Your task to perform on an android device: open the mobile data screen to see how much data has been used Image 0: 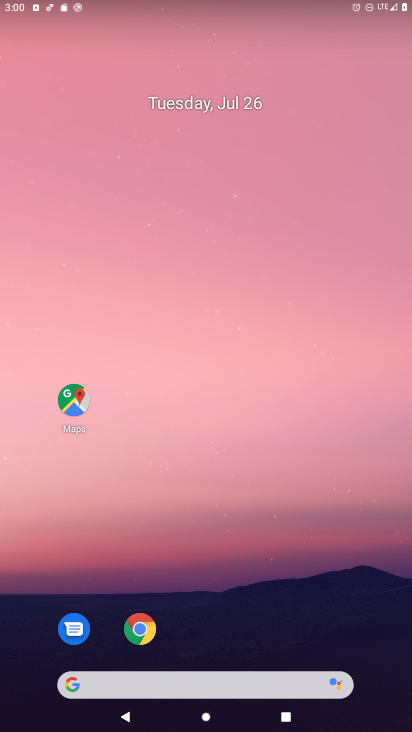
Step 0: drag from (381, 684) to (356, 162)
Your task to perform on an android device: open the mobile data screen to see how much data has been used Image 1: 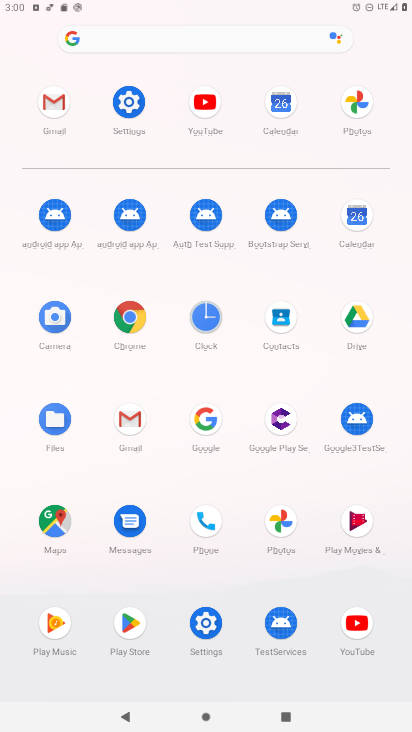
Step 1: click (208, 627)
Your task to perform on an android device: open the mobile data screen to see how much data has been used Image 2: 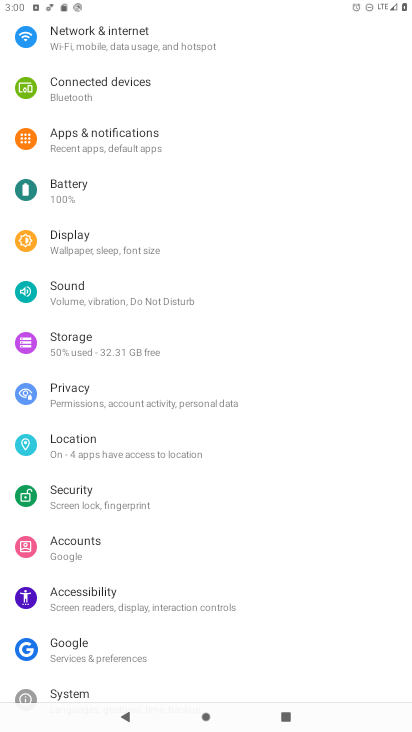
Step 2: drag from (245, 95) to (256, 310)
Your task to perform on an android device: open the mobile data screen to see how much data has been used Image 3: 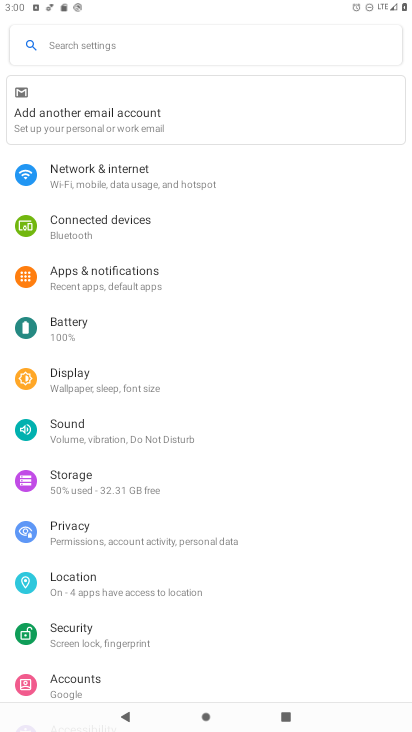
Step 3: click (89, 174)
Your task to perform on an android device: open the mobile data screen to see how much data has been used Image 4: 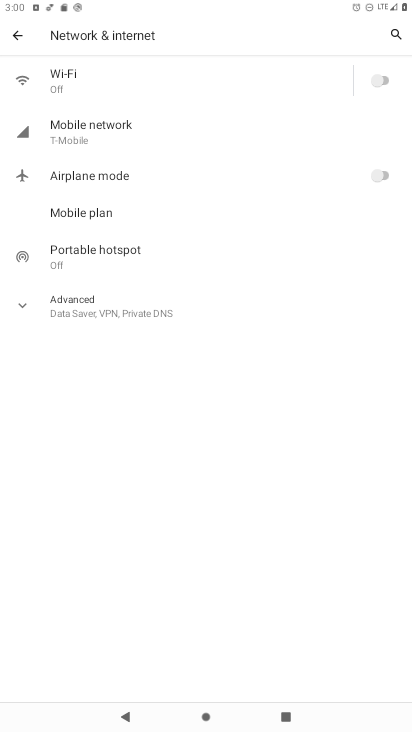
Step 4: click (86, 125)
Your task to perform on an android device: open the mobile data screen to see how much data has been used Image 5: 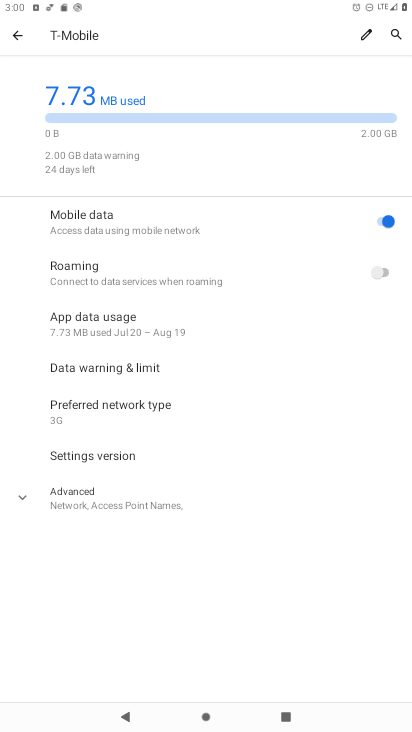
Step 5: task complete